Your task to perform on an android device: What's the weather going to be tomorrow? Image 0: 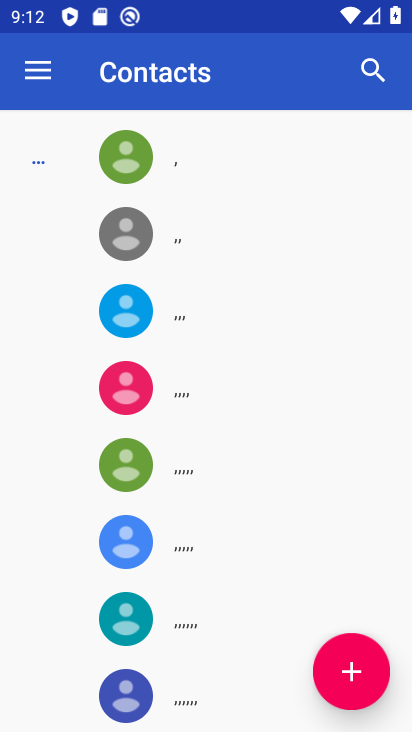
Step 0: drag from (205, 584) to (261, 204)
Your task to perform on an android device: What's the weather going to be tomorrow? Image 1: 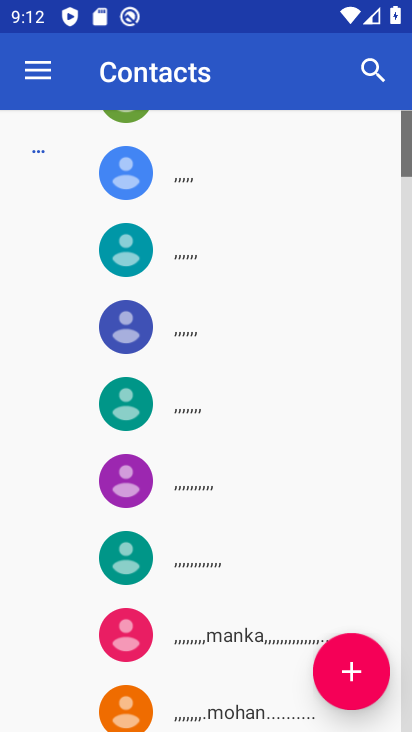
Step 1: press back button
Your task to perform on an android device: What's the weather going to be tomorrow? Image 2: 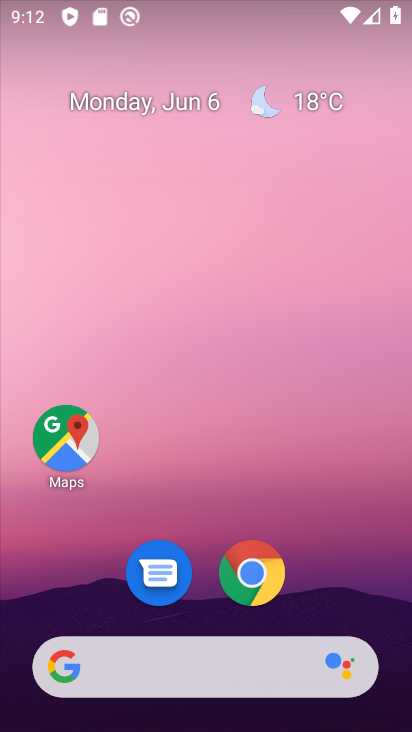
Step 2: click (270, 91)
Your task to perform on an android device: What's the weather going to be tomorrow? Image 3: 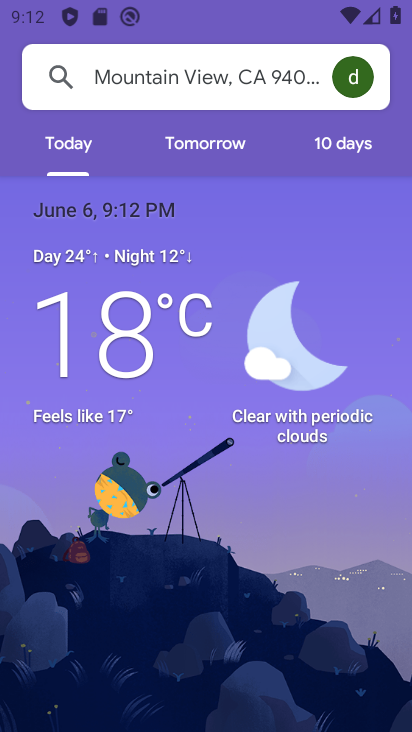
Step 3: click (199, 137)
Your task to perform on an android device: What's the weather going to be tomorrow? Image 4: 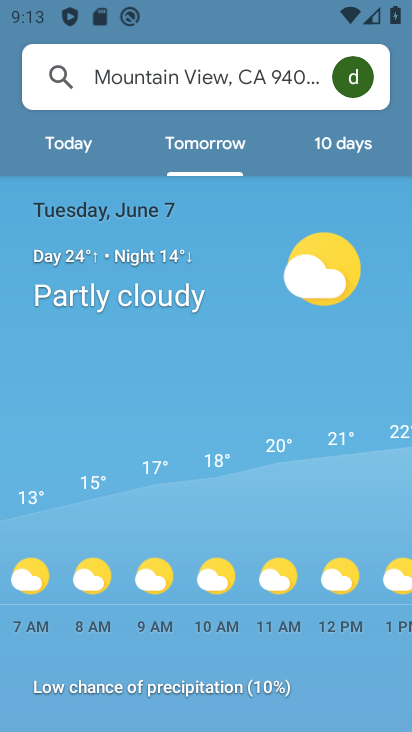
Step 4: task complete